Your task to perform on an android device: open sync settings in chrome Image 0: 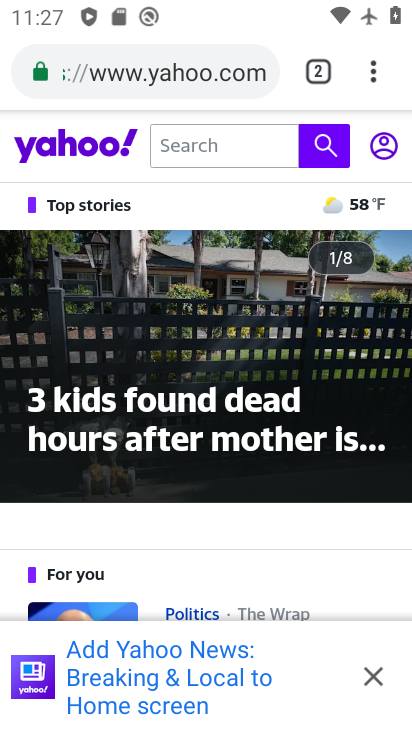
Step 0: press home button
Your task to perform on an android device: open sync settings in chrome Image 1: 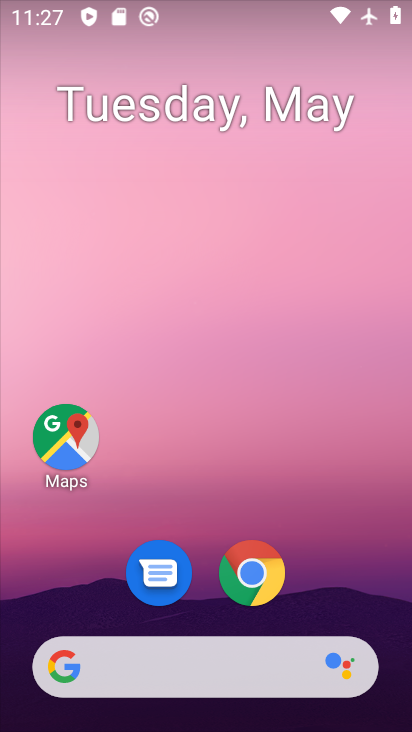
Step 1: drag from (192, 637) to (195, 352)
Your task to perform on an android device: open sync settings in chrome Image 2: 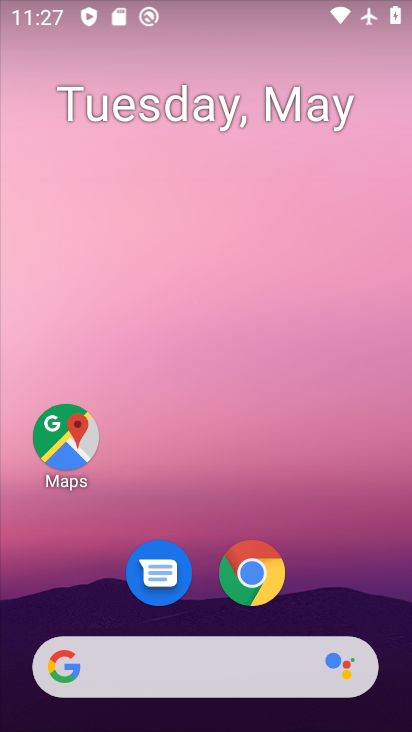
Step 2: click (239, 590)
Your task to perform on an android device: open sync settings in chrome Image 3: 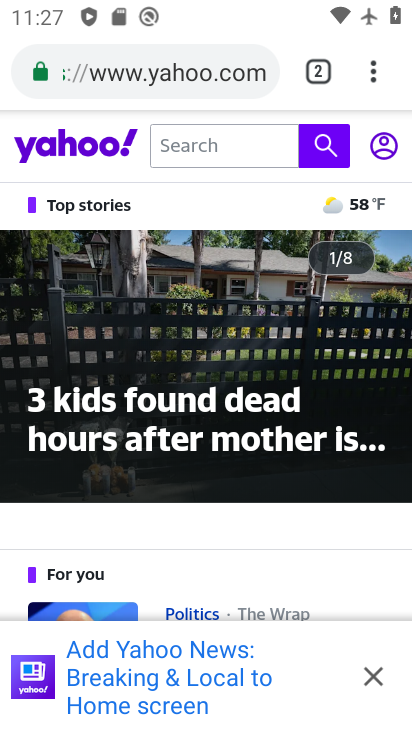
Step 3: click (375, 74)
Your task to perform on an android device: open sync settings in chrome Image 4: 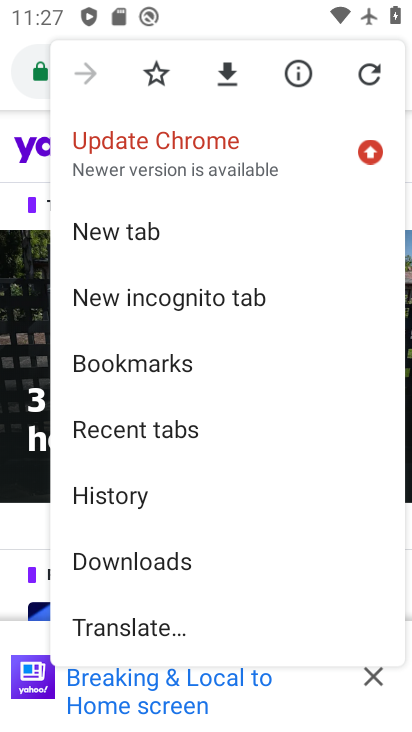
Step 4: drag from (142, 642) to (152, 267)
Your task to perform on an android device: open sync settings in chrome Image 5: 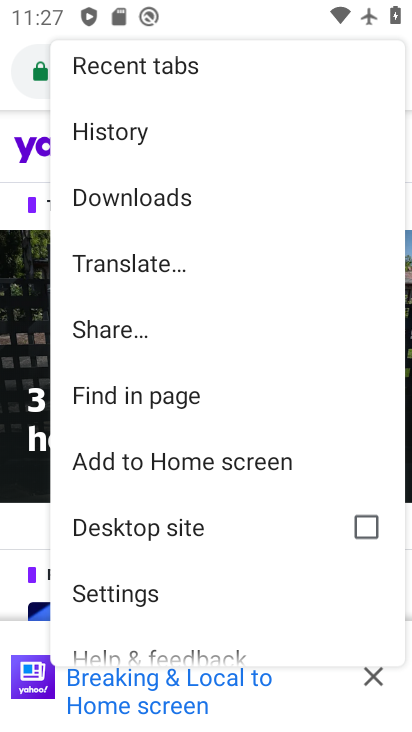
Step 5: click (146, 592)
Your task to perform on an android device: open sync settings in chrome Image 6: 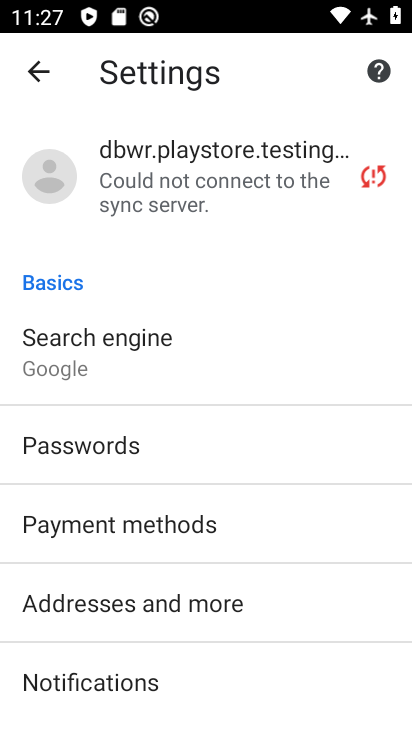
Step 6: click (190, 164)
Your task to perform on an android device: open sync settings in chrome Image 7: 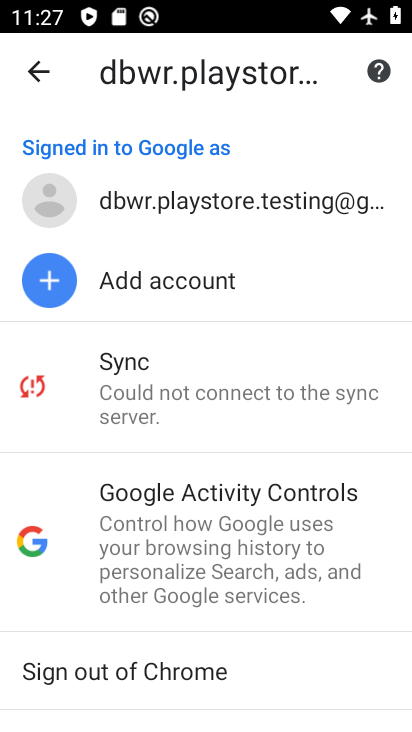
Step 7: drag from (141, 396) to (141, 333)
Your task to perform on an android device: open sync settings in chrome Image 8: 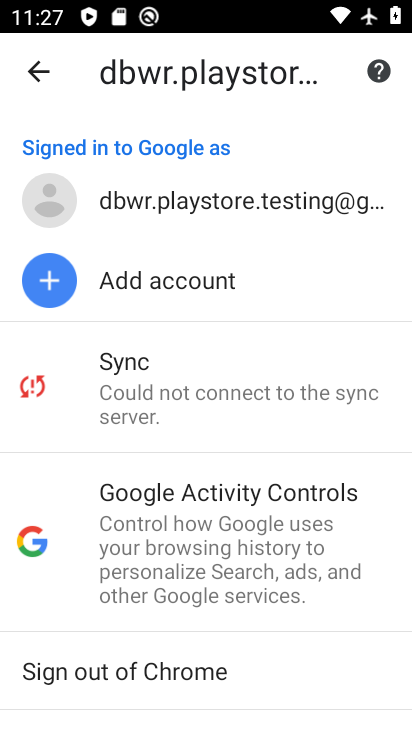
Step 8: drag from (237, 561) to (237, 259)
Your task to perform on an android device: open sync settings in chrome Image 9: 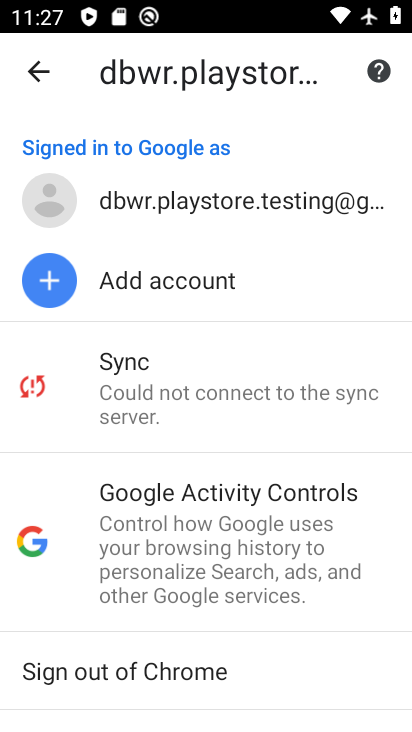
Step 9: click (226, 393)
Your task to perform on an android device: open sync settings in chrome Image 10: 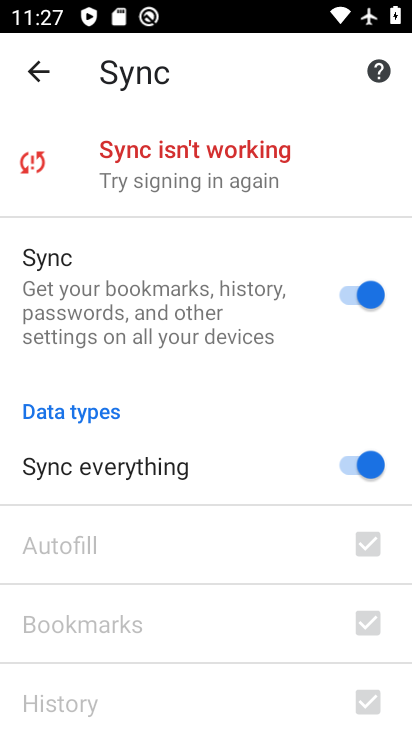
Step 10: task complete